Your task to perform on an android device: turn off wifi Image 0: 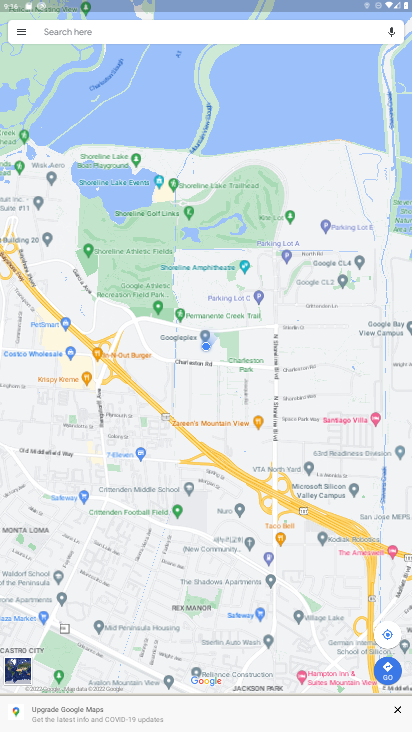
Step 0: press home button
Your task to perform on an android device: turn off wifi Image 1: 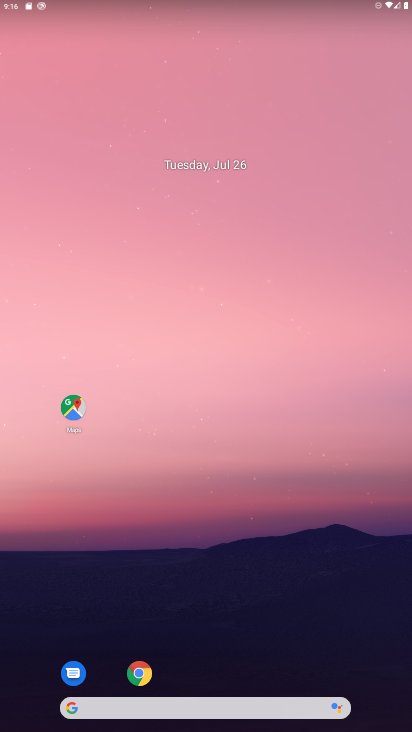
Step 1: drag from (211, 664) to (218, 76)
Your task to perform on an android device: turn off wifi Image 2: 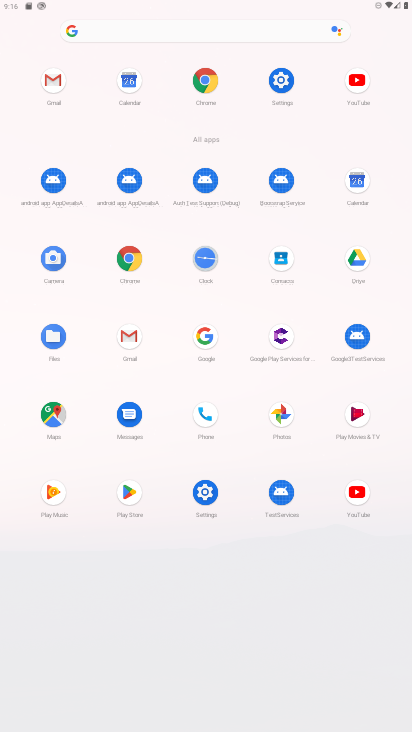
Step 2: click (285, 87)
Your task to perform on an android device: turn off wifi Image 3: 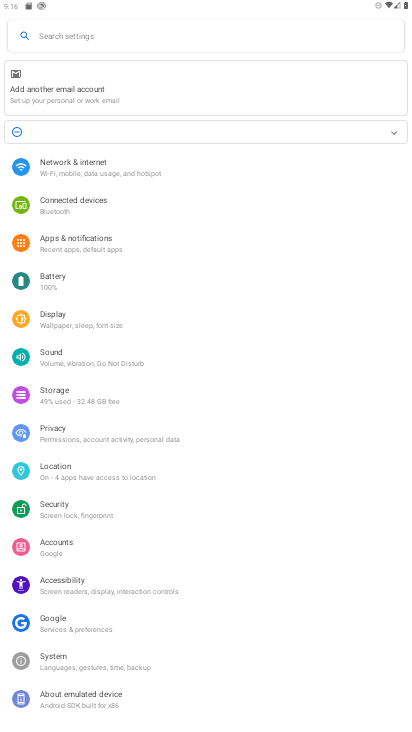
Step 3: click (90, 166)
Your task to perform on an android device: turn off wifi Image 4: 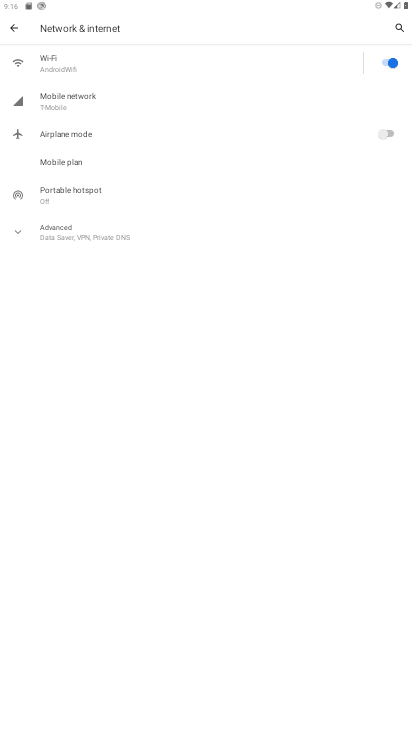
Step 4: click (385, 66)
Your task to perform on an android device: turn off wifi Image 5: 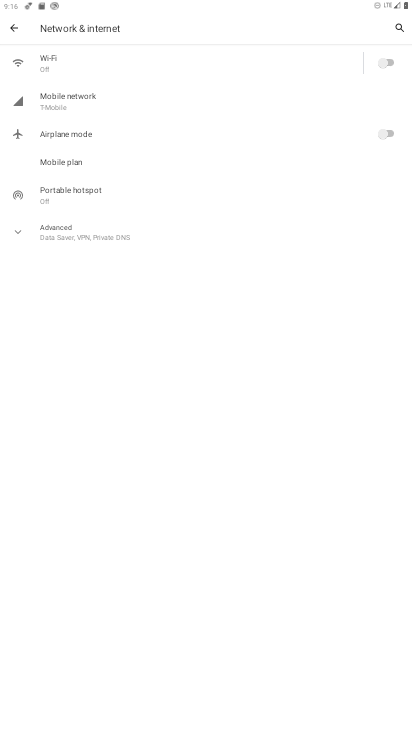
Step 5: task complete